Your task to perform on an android device: find which apps use the phone's location Image 0: 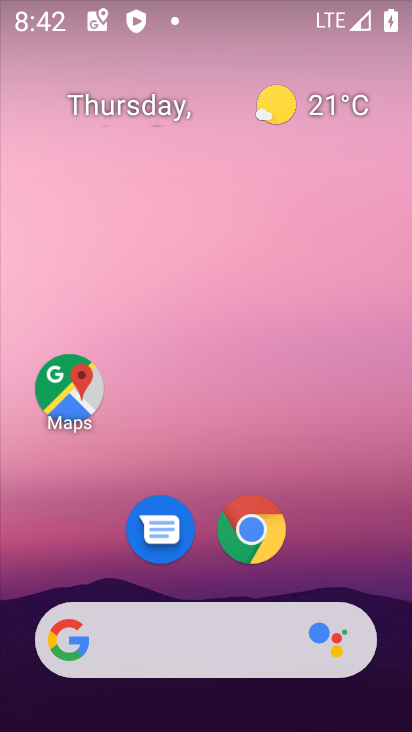
Step 0: drag from (278, 716) to (243, 16)
Your task to perform on an android device: find which apps use the phone's location Image 1: 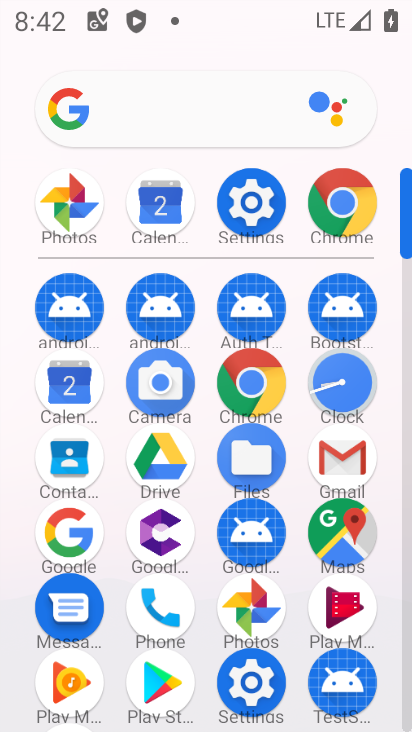
Step 1: click (260, 194)
Your task to perform on an android device: find which apps use the phone's location Image 2: 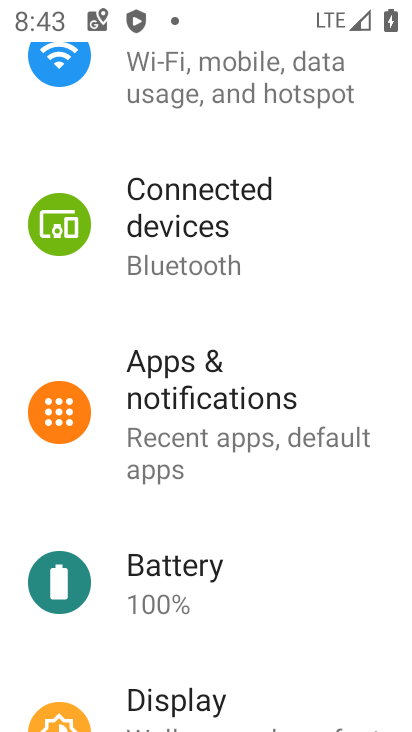
Step 2: drag from (370, 625) to (300, 1)
Your task to perform on an android device: find which apps use the phone's location Image 3: 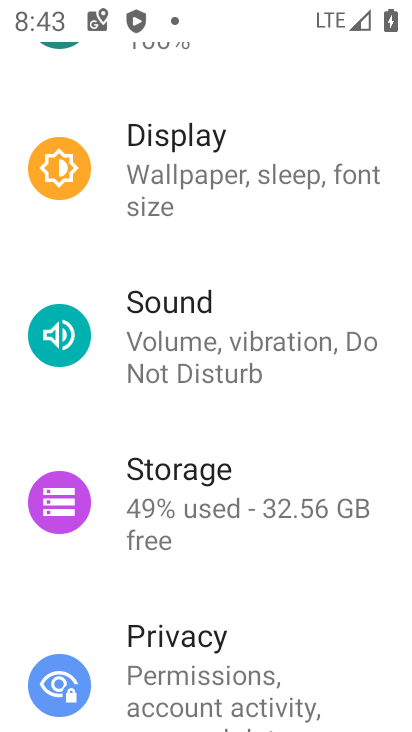
Step 3: drag from (303, 687) to (269, 157)
Your task to perform on an android device: find which apps use the phone's location Image 4: 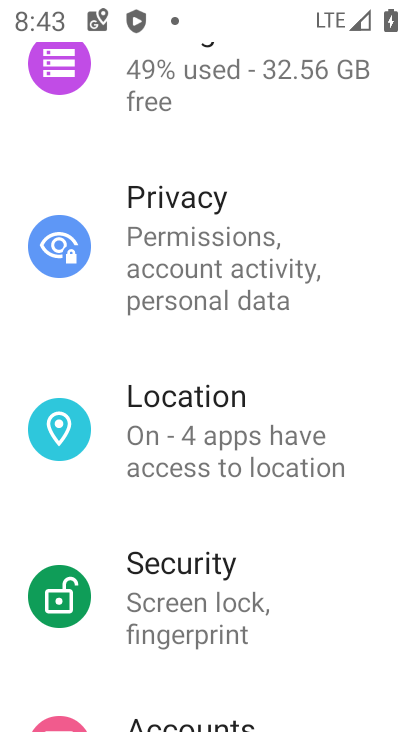
Step 4: click (284, 434)
Your task to perform on an android device: find which apps use the phone's location Image 5: 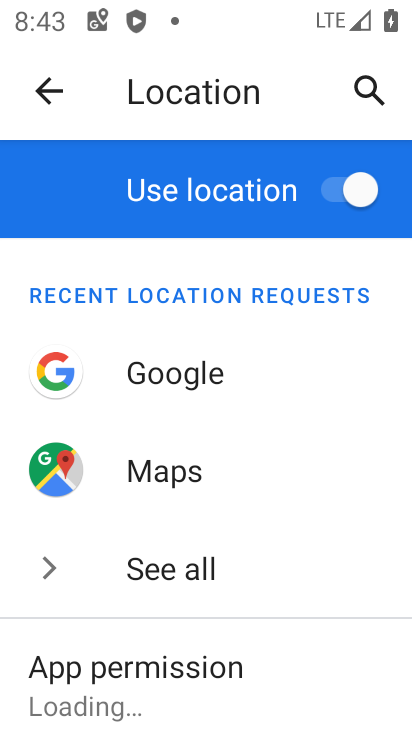
Step 5: task complete